Your task to perform on an android device: Open privacy settings Image 0: 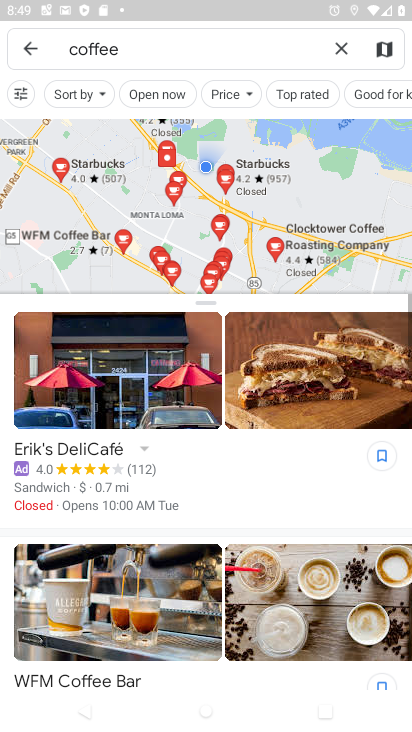
Step 0: press home button
Your task to perform on an android device: Open privacy settings Image 1: 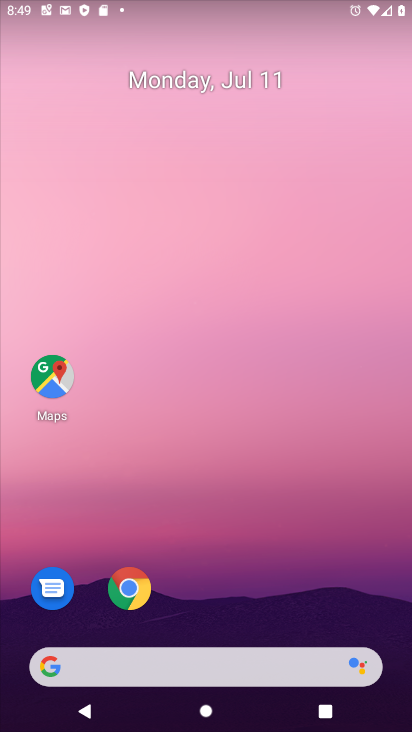
Step 1: drag from (157, 659) to (409, 82)
Your task to perform on an android device: Open privacy settings Image 2: 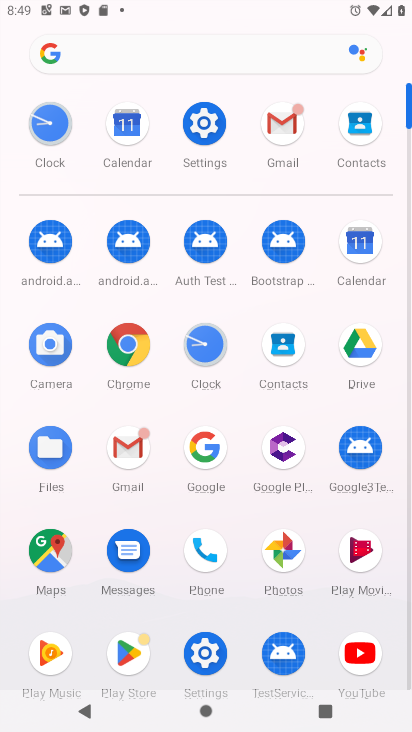
Step 2: click (203, 660)
Your task to perform on an android device: Open privacy settings Image 3: 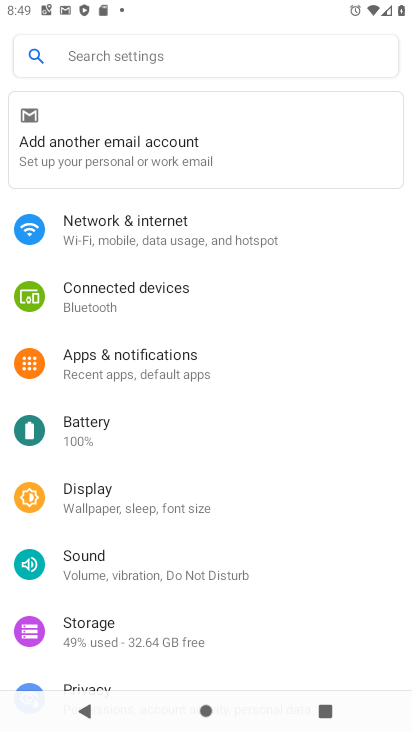
Step 3: drag from (274, 610) to (411, 264)
Your task to perform on an android device: Open privacy settings Image 4: 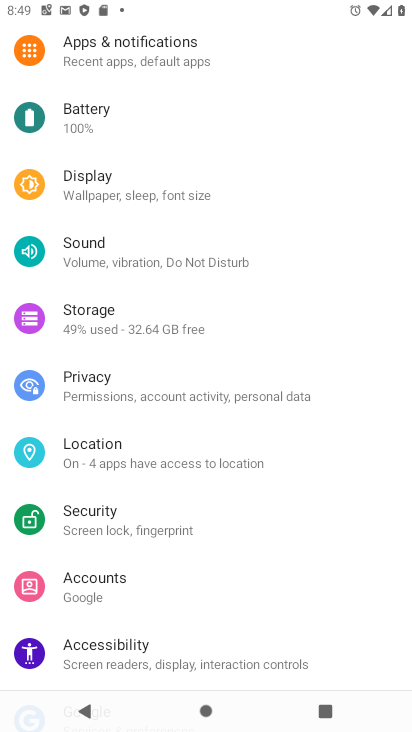
Step 4: click (106, 387)
Your task to perform on an android device: Open privacy settings Image 5: 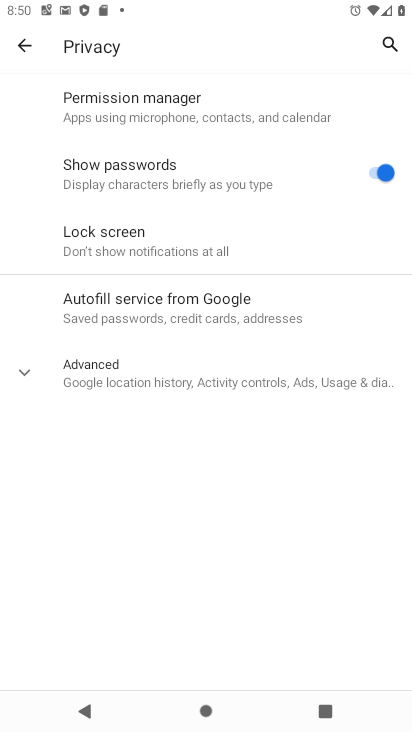
Step 5: task complete